Your task to perform on an android device: change the clock display to digital Image 0: 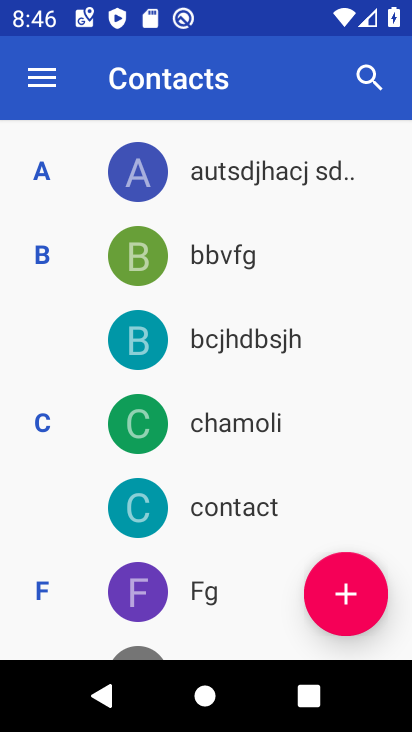
Step 0: press back button
Your task to perform on an android device: change the clock display to digital Image 1: 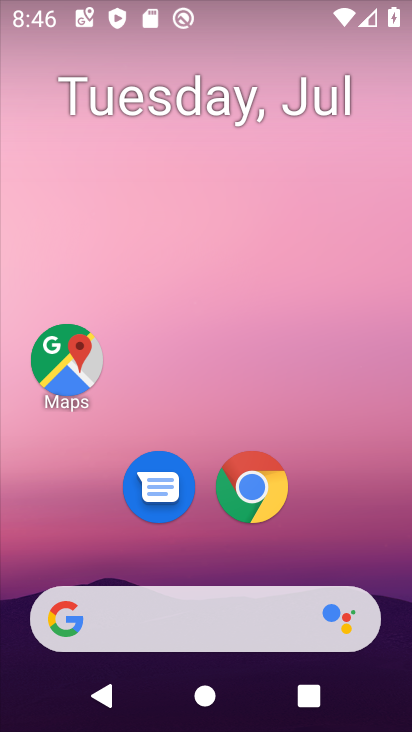
Step 1: drag from (166, 572) to (220, 28)
Your task to perform on an android device: change the clock display to digital Image 2: 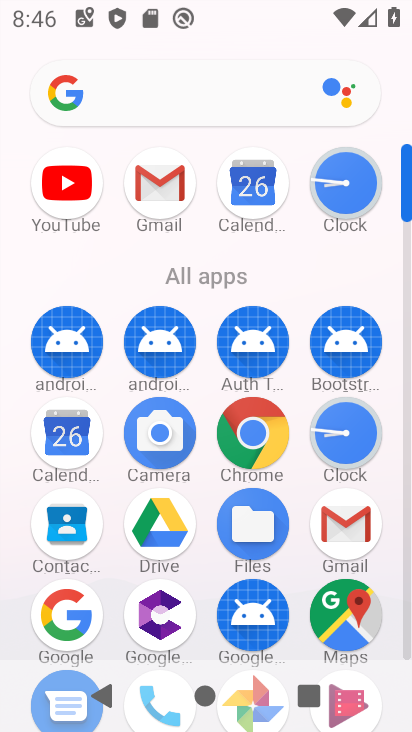
Step 2: click (327, 428)
Your task to perform on an android device: change the clock display to digital Image 3: 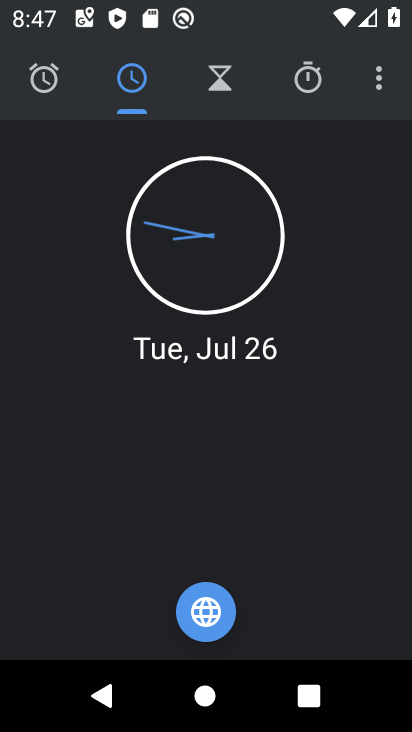
Step 3: click (383, 76)
Your task to perform on an android device: change the clock display to digital Image 4: 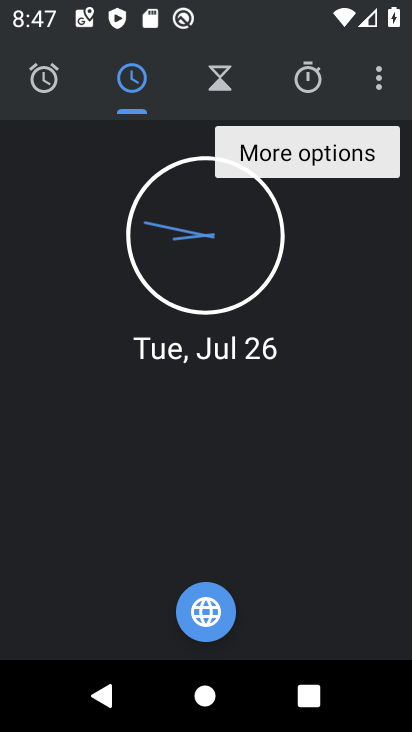
Step 4: click (374, 70)
Your task to perform on an android device: change the clock display to digital Image 5: 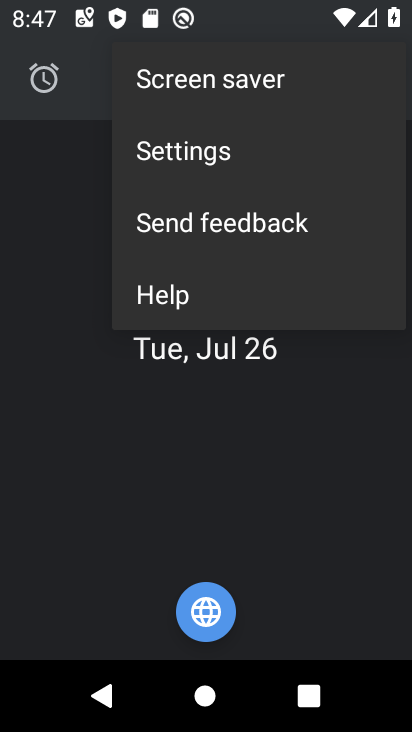
Step 5: click (169, 165)
Your task to perform on an android device: change the clock display to digital Image 6: 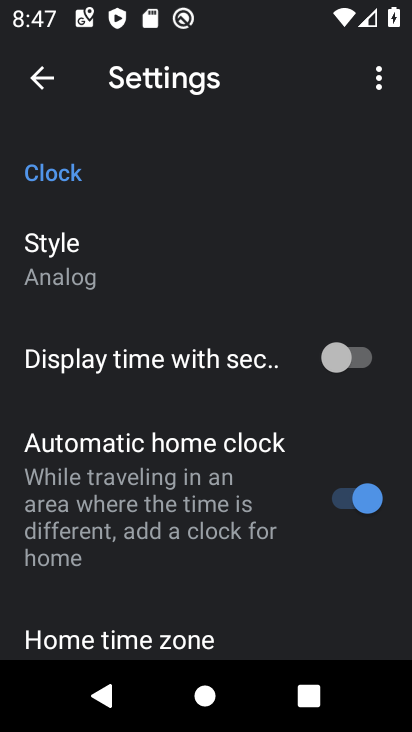
Step 6: click (87, 253)
Your task to perform on an android device: change the clock display to digital Image 7: 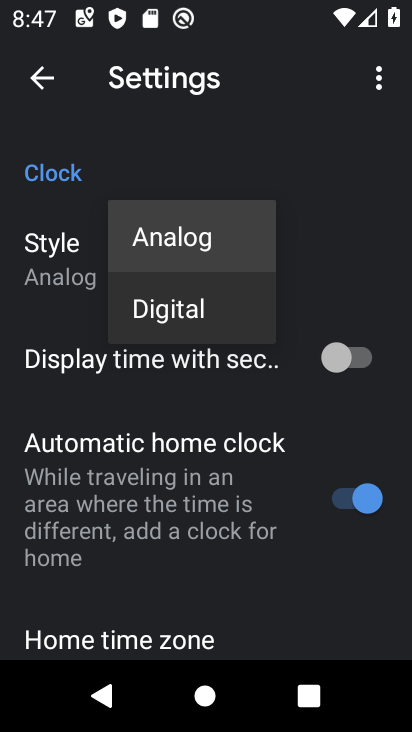
Step 7: click (195, 312)
Your task to perform on an android device: change the clock display to digital Image 8: 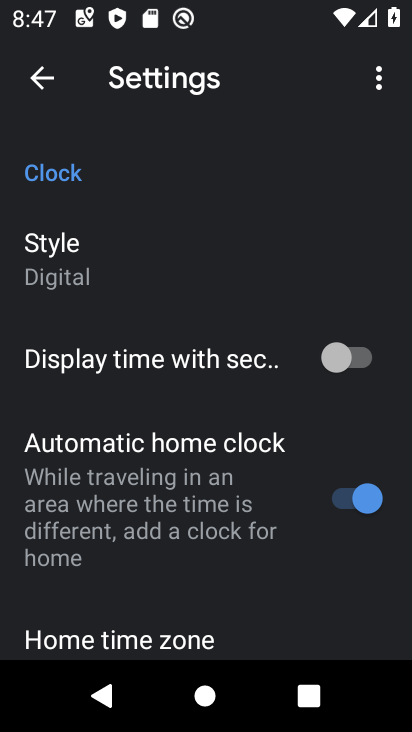
Step 8: task complete